Your task to perform on an android device: choose inbox layout in the gmail app Image 0: 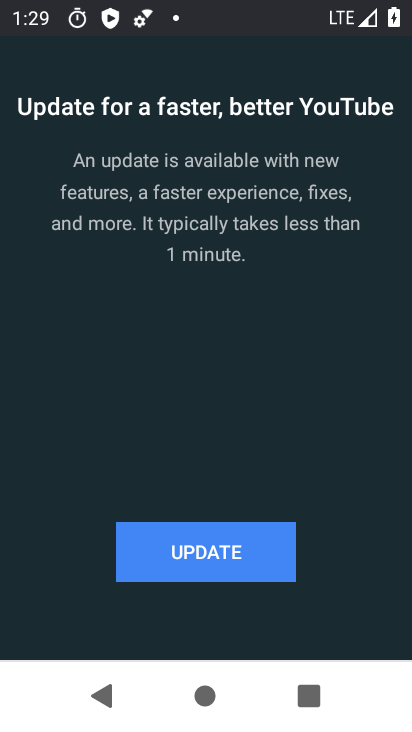
Step 0: press home button
Your task to perform on an android device: choose inbox layout in the gmail app Image 1: 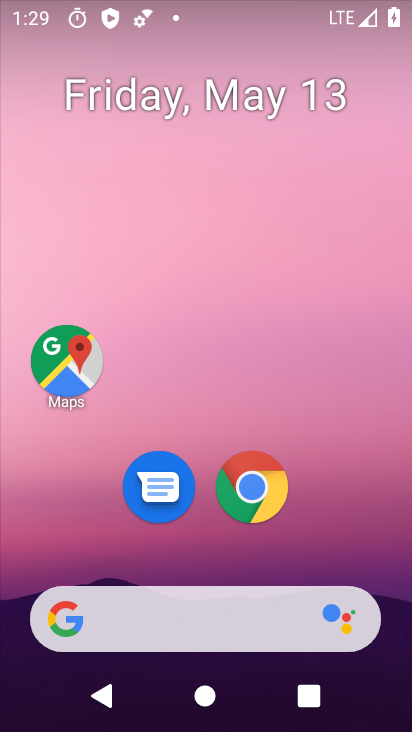
Step 1: drag from (388, 546) to (322, 174)
Your task to perform on an android device: choose inbox layout in the gmail app Image 2: 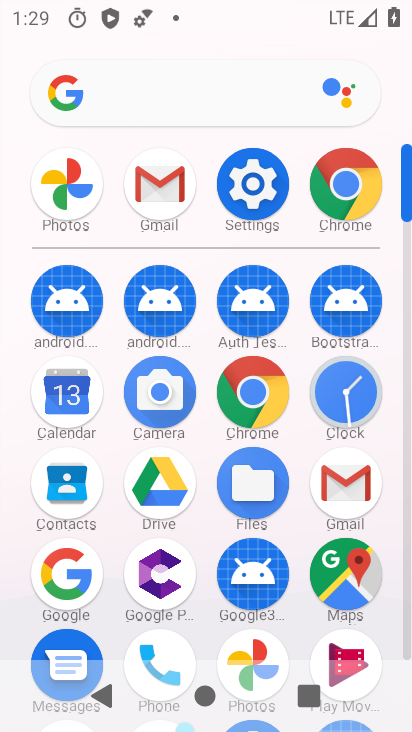
Step 2: click (332, 505)
Your task to perform on an android device: choose inbox layout in the gmail app Image 3: 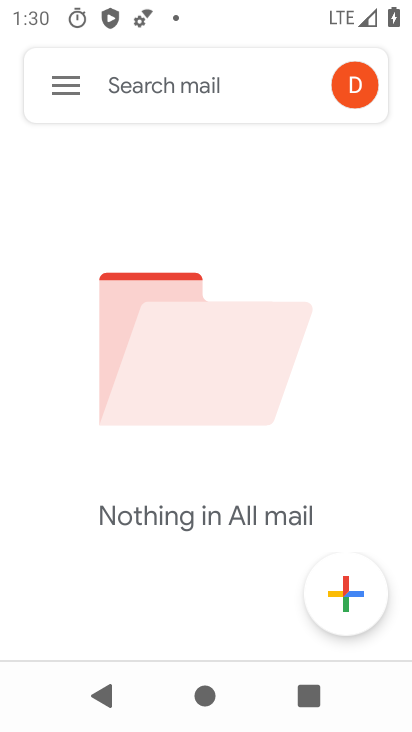
Step 3: click (51, 84)
Your task to perform on an android device: choose inbox layout in the gmail app Image 4: 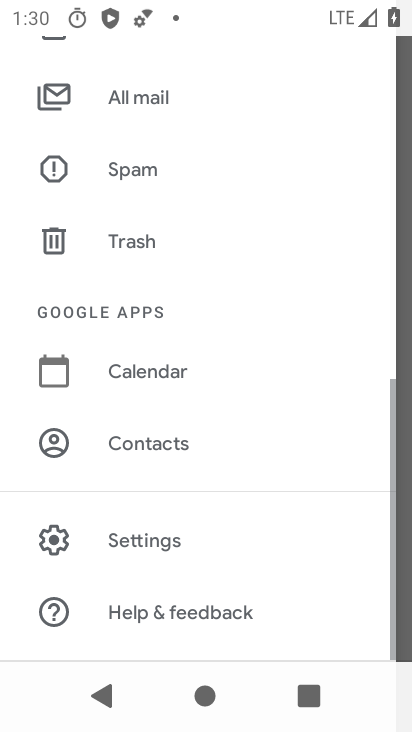
Step 4: click (169, 547)
Your task to perform on an android device: choose inbox layout in the gmail app Image 5: 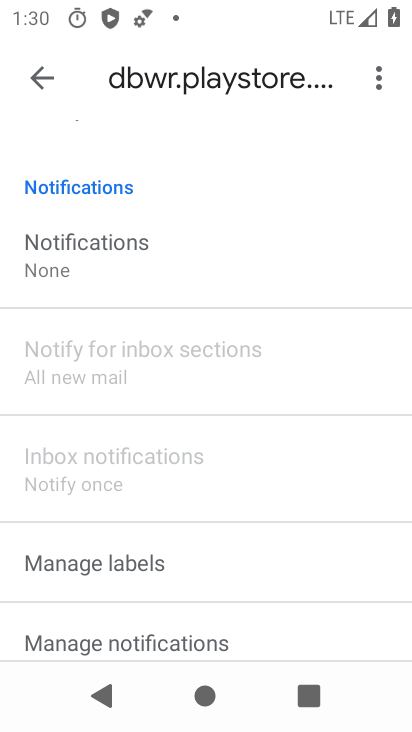
Step 5: drag from (171, 207) to (174, 541)
Your task to perform on an android device: choose inbox layout in the gmail app Image 6: 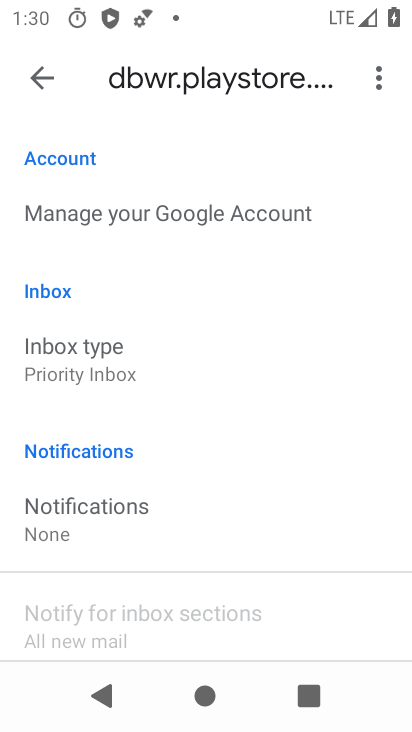
Step 6: click (67, 361)
Your task to perform on an android device: choose inbox layout in the gmail app Image 7: 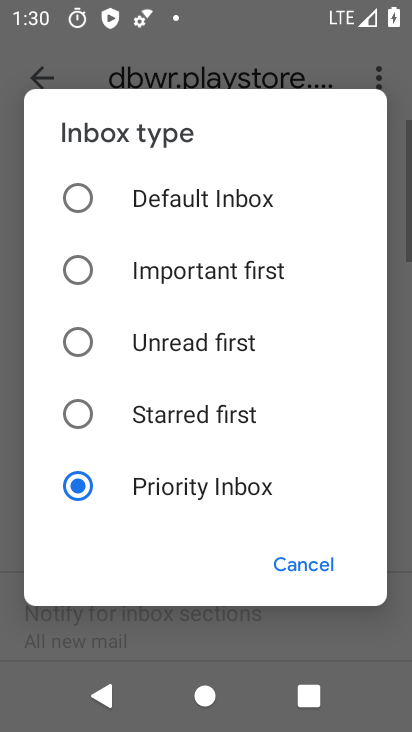
Step 7: click (156, 277)
Your task to perform on an android device: choose inbox layout in the gmail app Image 8: 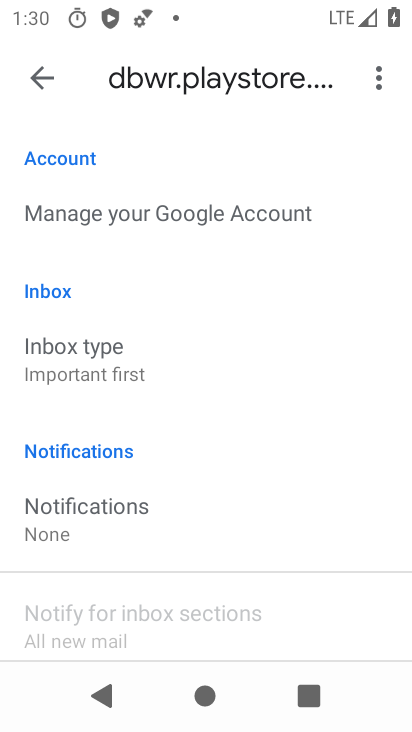
Step 8: task complete